Your task to perform on an android device: Open Google Chrome and click the shortcut for Amazon.com Image 0: 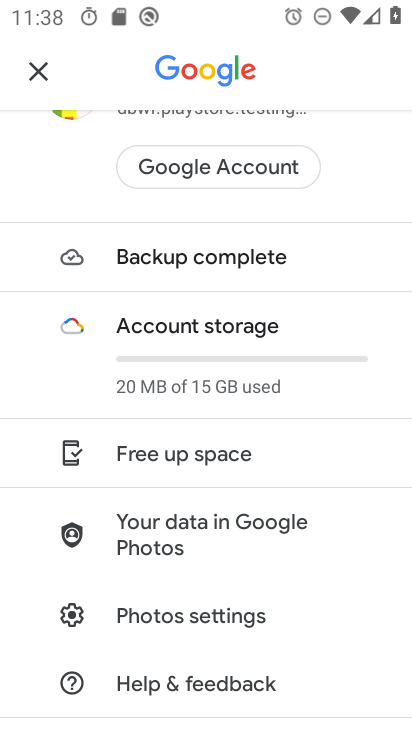
Step 0: press home button
Your task to perform on an android device: Open Google Chrome and click the shortcut for Amazon.com Image 1: 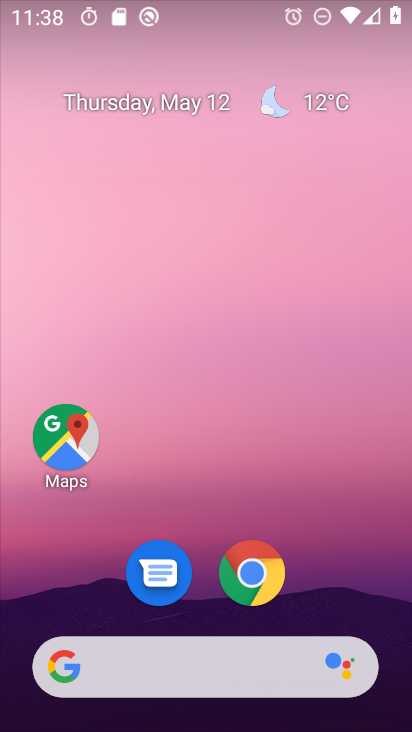
Step 1: click (251, 571)
Your task to perform on an android device: Open Google Chrome and click the shortcut for Amazon.com Image 2: 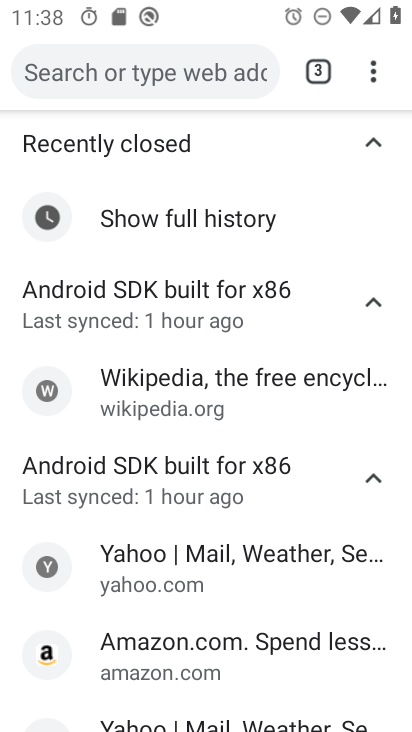
Step 2: press back button
Your task to perform on an android device: Open Google Chrome and click the shortcut for Amazon.com Image 3: 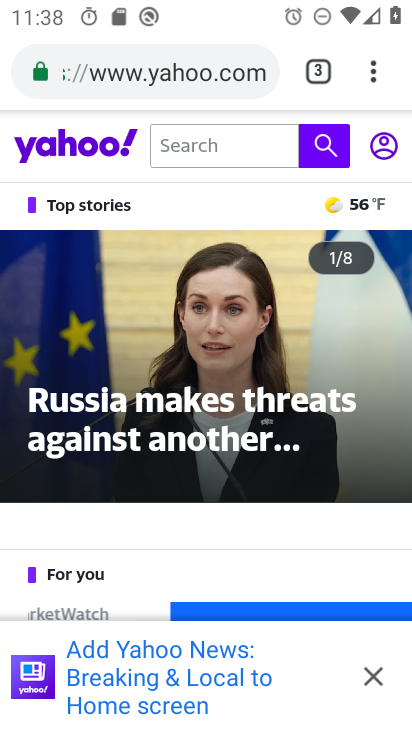
Step 3: click (317, 72)
Your task to perform on an android device: Open Google Chrome and click the shortcut for Amazon.com Image 4: 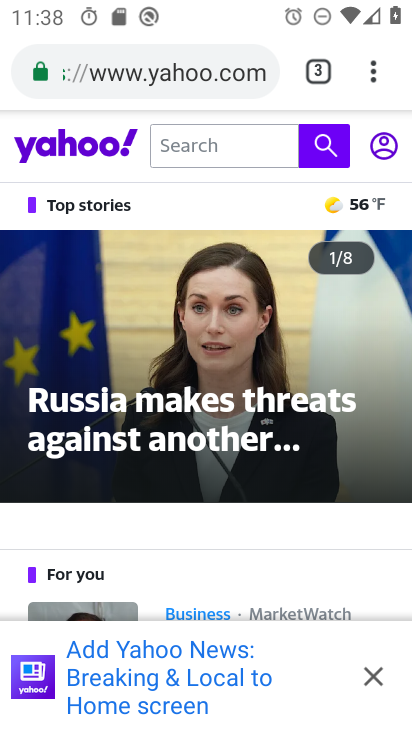
Step 4: click (372, 63)
Your task to perform on an android device: Open Google Chrome and click the shortcut for Amazon.com Image 5: 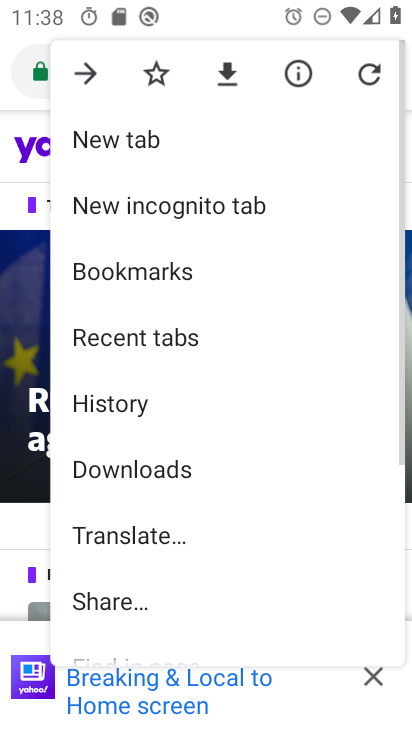
Step 5: click (122, 134)
Your task to perform on an android device: Open Google Chrome and click the shortcut for Amazon.com Image 6: 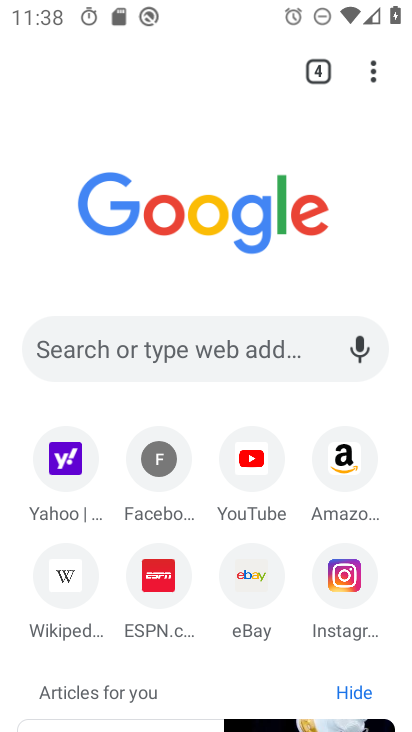
Step 6: click (350, 465)
Your task to perform on an android device: Open Google Chrome and click the shortcut for Amazon.com Image 7: 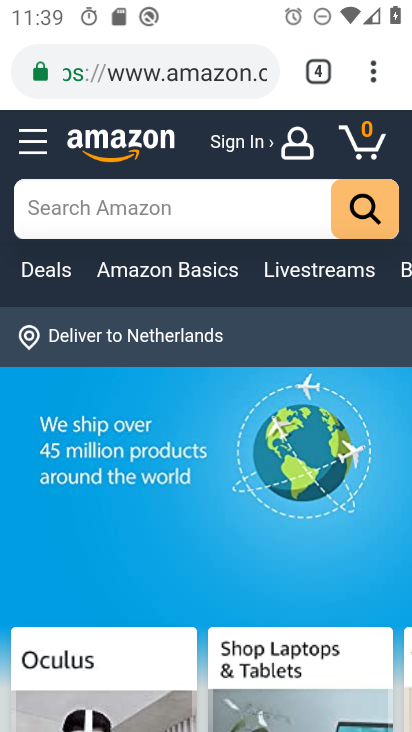
Step 7: task complete